Your task to perform on an android device: What's the weather today? Image 0: 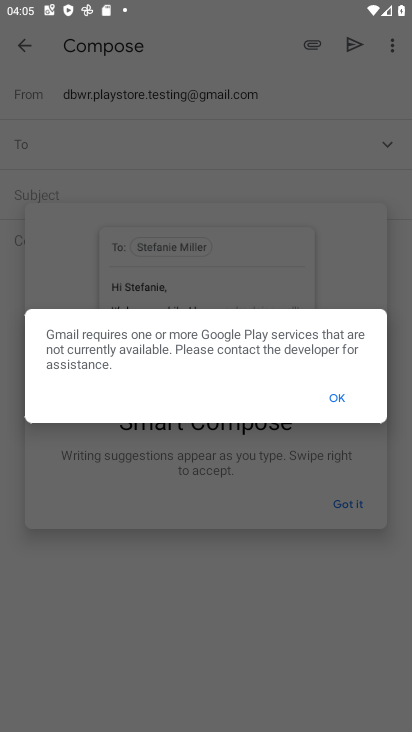
Step 0: press home button
Your task to perform on an android device: What's the weather today? Image 1: 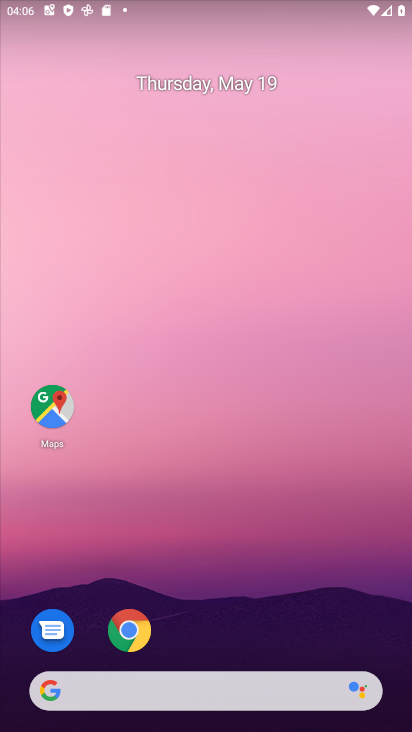
Step 1: drag from (6, 210) to (369, 294)
Your task to perform on an android device: What's the weather today? Image 2: 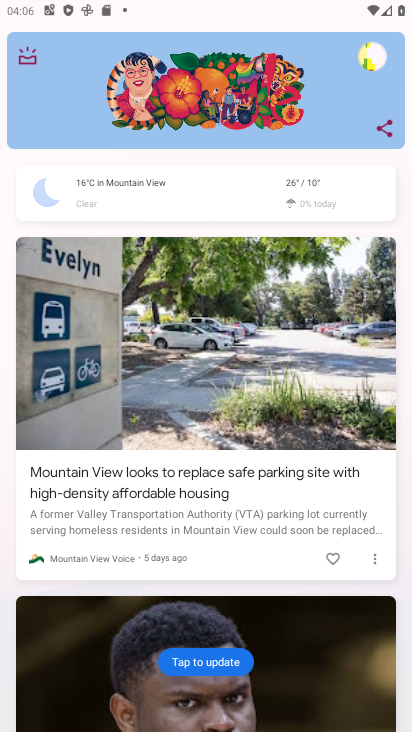
Step 2: click (307, 184)
Your task to perform on an android device: What's the weather today? Image 3: 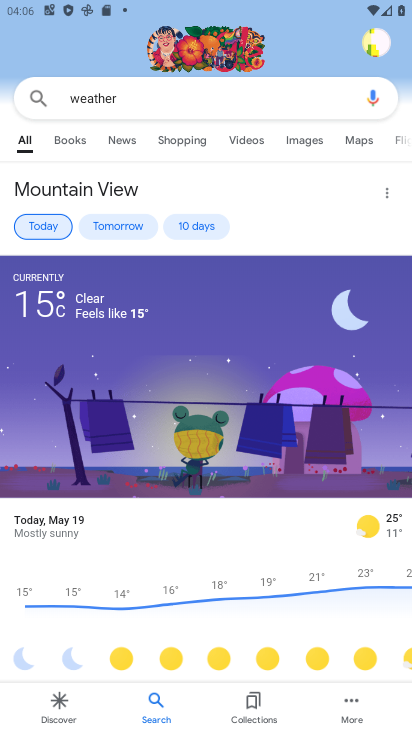
Step 3: task complete